Your task to perform on an android device: Is it going to rain this weekend? Image 0: 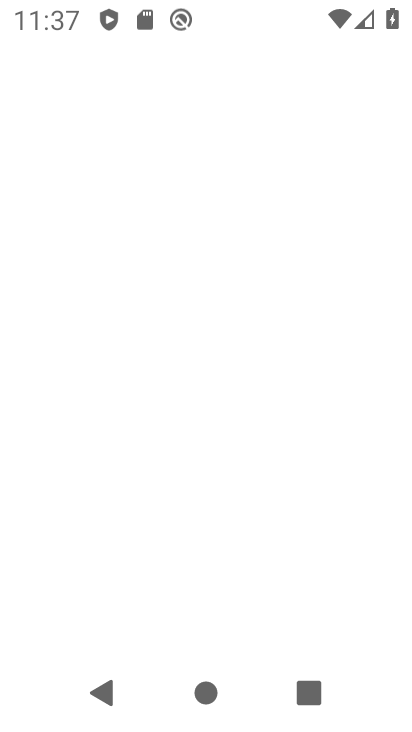
Step 0: press home button
Your task to perform on an android device: Is it going to rain this weekend? Image 1: 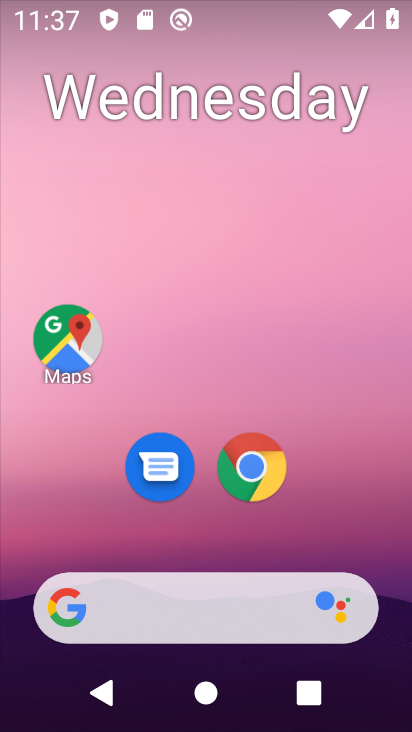
Step 1: click (74, 608)
Your task to perform on an android device: Is it going to rain this weekend? Image 2: 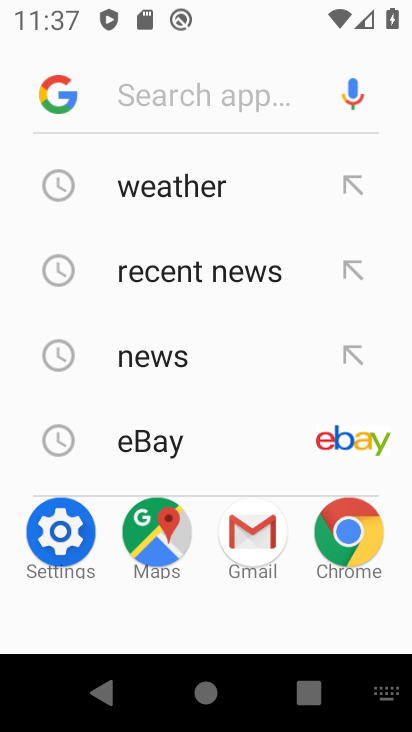
Step 2: click (209, 182)
Your task to perform on an android device: Is it going to rain this weekend? Image 3: 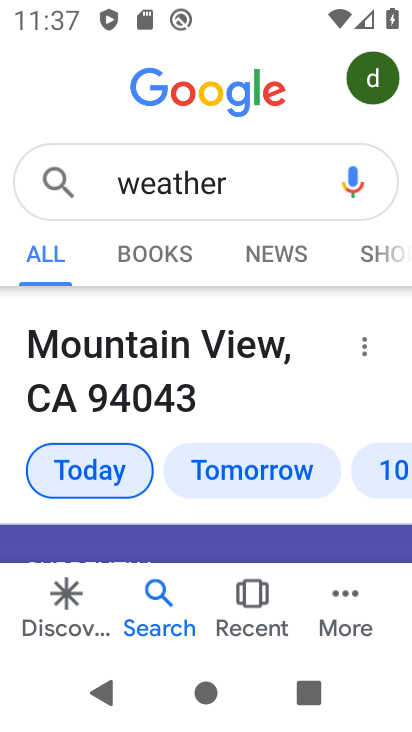
Step 3: click (386, 474)
Your task to perform on an android device: Is it going to rain this weekend? Image 4: 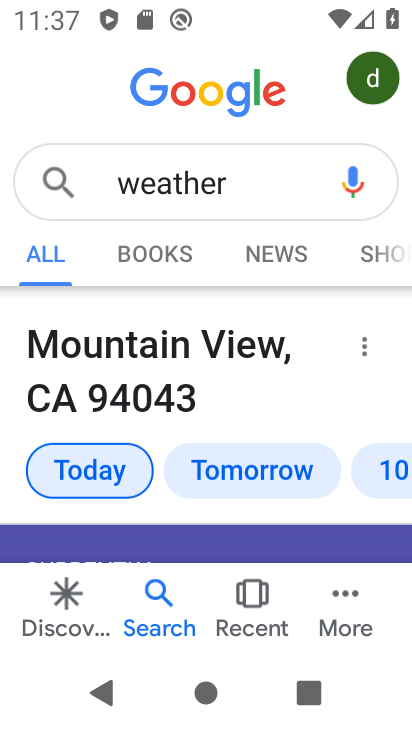
Step 4: click (393, 466)
Your task to perform on an android device: Is it going to rain this weekend? Image 5: 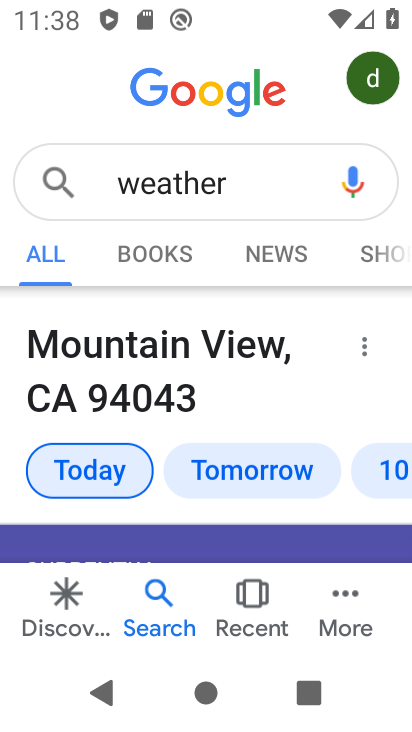
Step 5: drag from (391, 475) to (153, 439)
Your task to perform on an android device: Is it going to rain this weekend? Image 6: 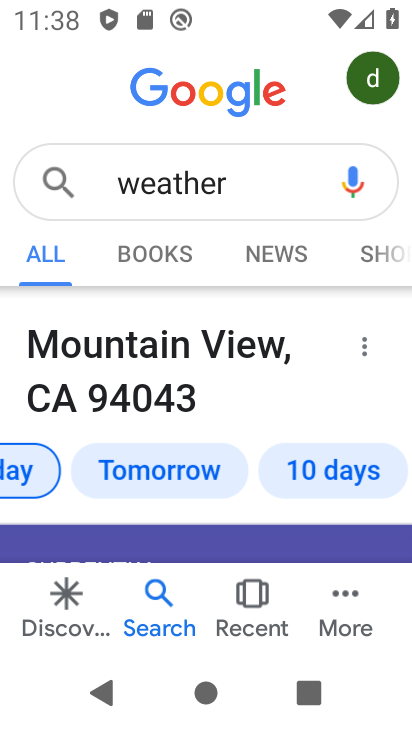
Step 6: click (341, 478)
Your task to perform on an android device: Is it going to rain this weekend? Image 7: 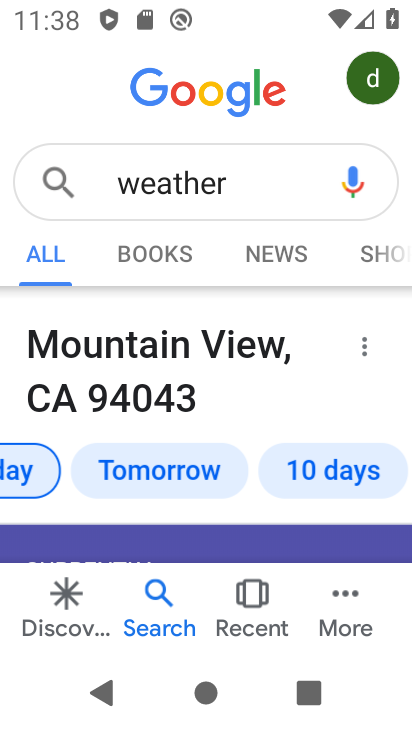
Step 7: click (342, 471)
Your task to perform on an android device: Is it going to rain this weekend? Image 8: 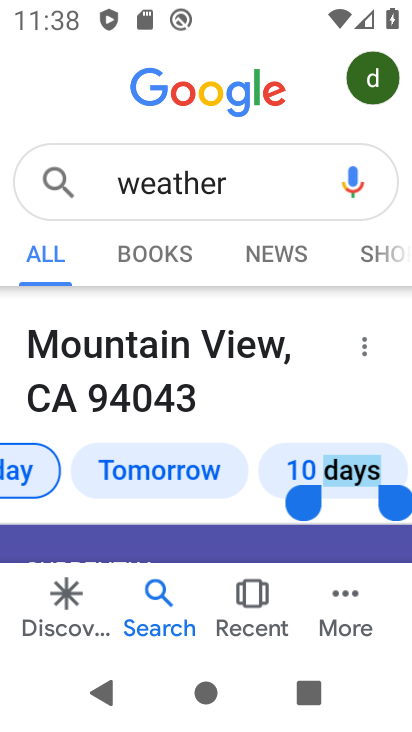
Step 8: click (342, 470)
Your task to perform on an android device: Is it going to rain this weekend? Image 9: 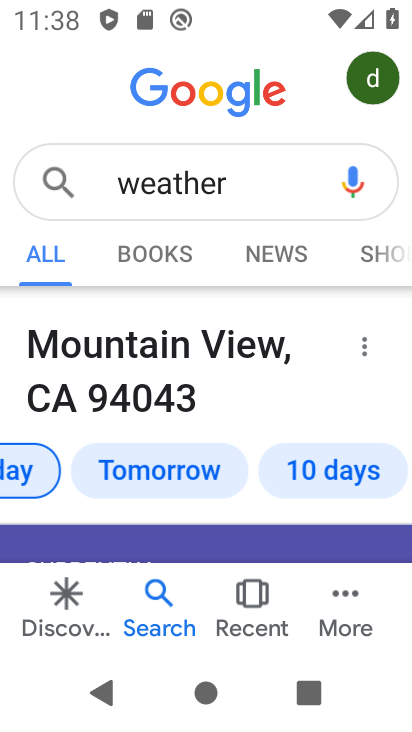
Step 9: click (69, 604)
Your task to perform on an android device: Is it going to rain this weekend? Image 10: 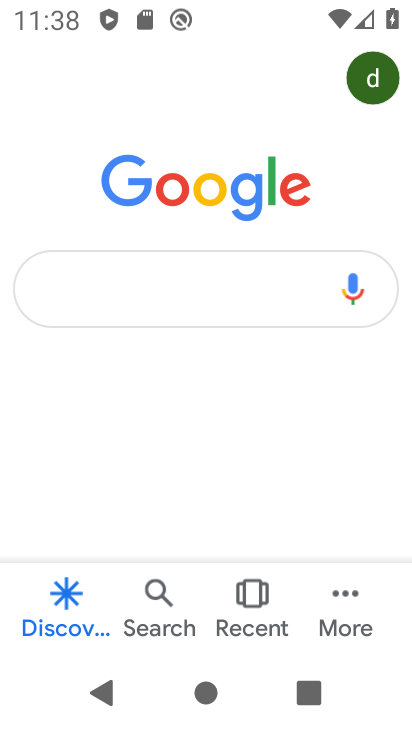
Step 10: click (158, 593)
Your task to perform on an android device: Is it going to rain this weekend? Image 11: 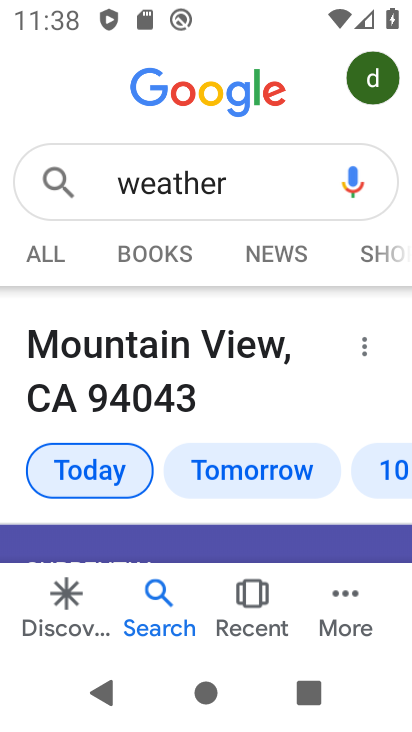
Step 11: drag from (391, 468) to (148, 456)
Your task to perform on an android device: Is it going to rain this weekend? Image 12: 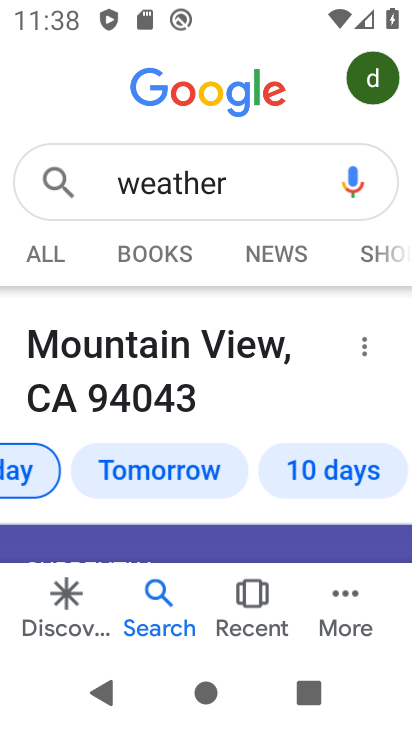
Step 12: click (329, 457)
Your task to perform on an android device: Is it going to rain this weekend? Image 13: 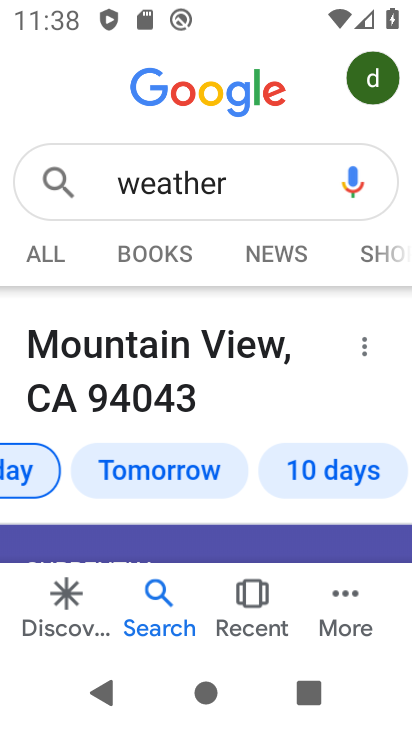
Step 13: click (332, 467)
Your task to perform on an android device: Is it going to rain this weekend? Image 14: 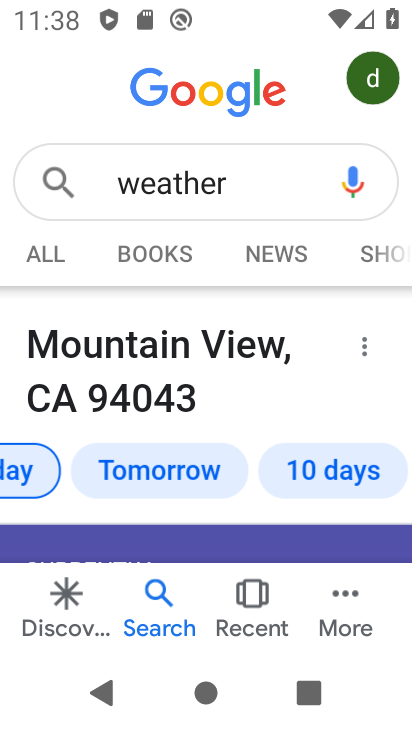
Step 14: task complete